Your task to perform on an android device: toggle pop-ups in chrome Image 0: 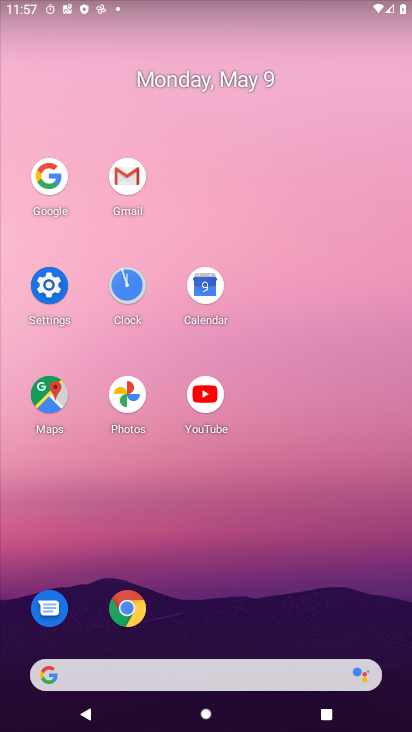
Step 0: click (133, 605)
Your task to perform on an android device: toggle pop-ups in chrome Image 1: 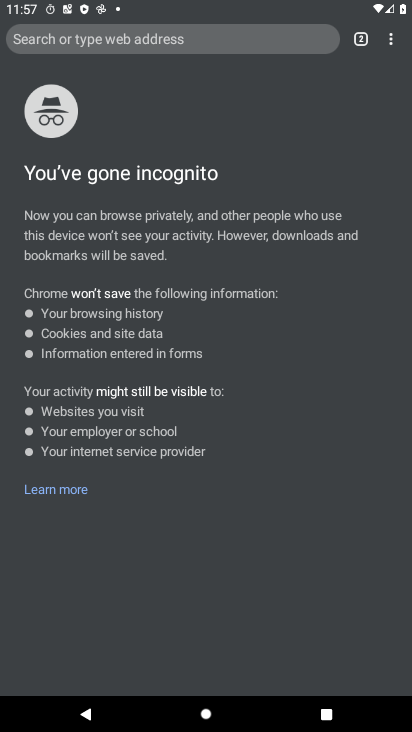
Step 1: click (391, 38)
Your task to perform on an android device: toggle pop-ups in chrome Image 2: 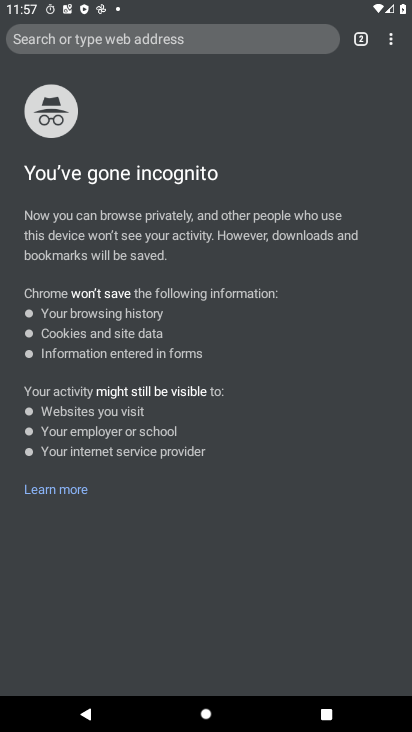
Step 2: click (392, 46)
Your task to perform on an android device: toggle pop-ups in chrome Image 3: 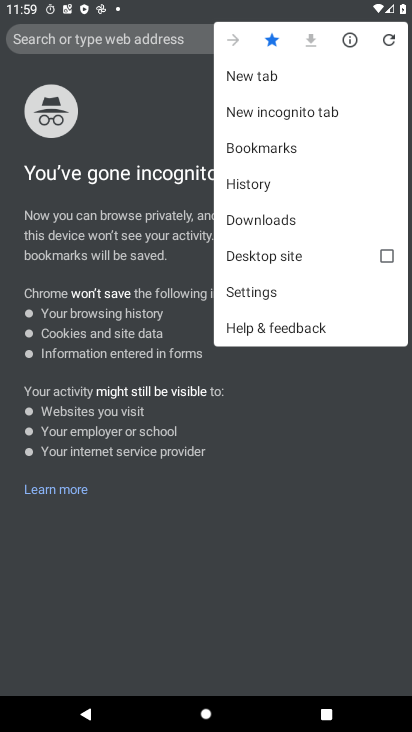
Step 3: click (271, 291)
Your task to perform on an android device: toggle pop-ups in chrome Image 4: 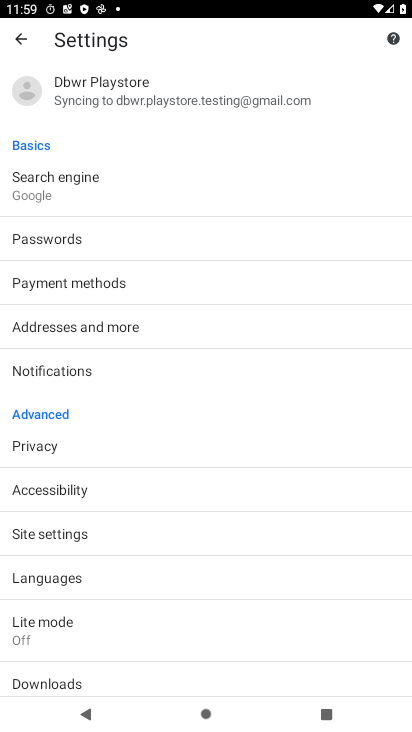
Step 4: drag from (201, 609) to (243, 122)
Your task to perform on an android device: toggle pop-ups in chrome Image 5: 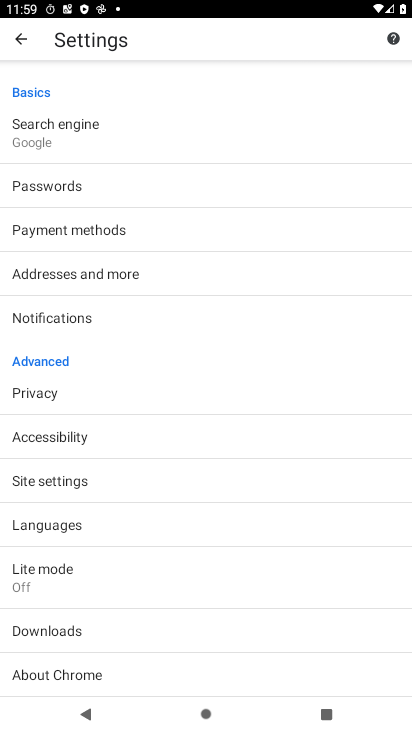
Step 5: click (106, 493)
Your task to perform on an android device: toggle pop-ups in chrome Image 6: 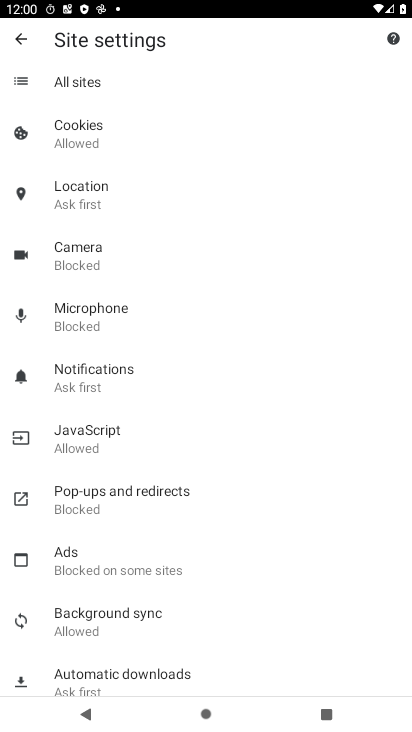
Step 6: drag from (200, 598) to (195, 165)
Your task to perform on an android device: toggle pop-ups in chrome Image 7: 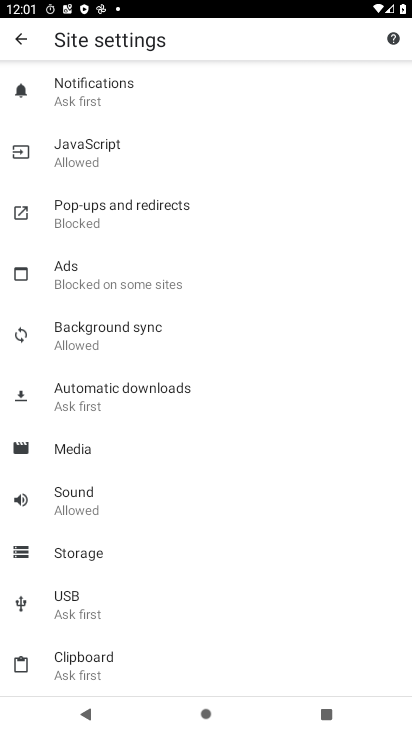
Step 7: click (141, 203)
Your task to perform on an android device: toggle pop-ups in chrome Image 8: 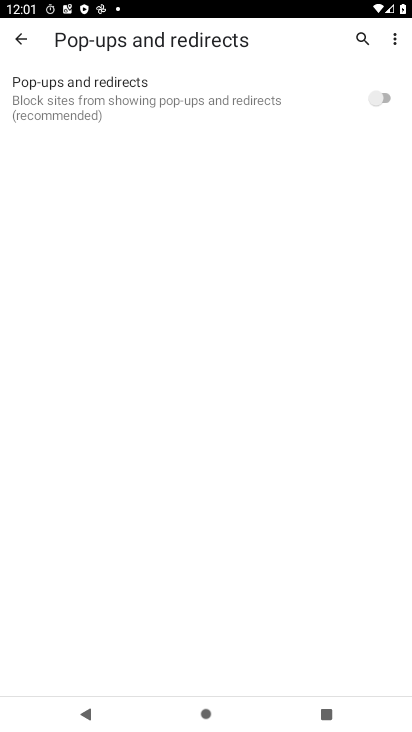
Step 8: click (378, 101)
Your task to perform on an android device: toggle pop-ups in chrome Image 9: 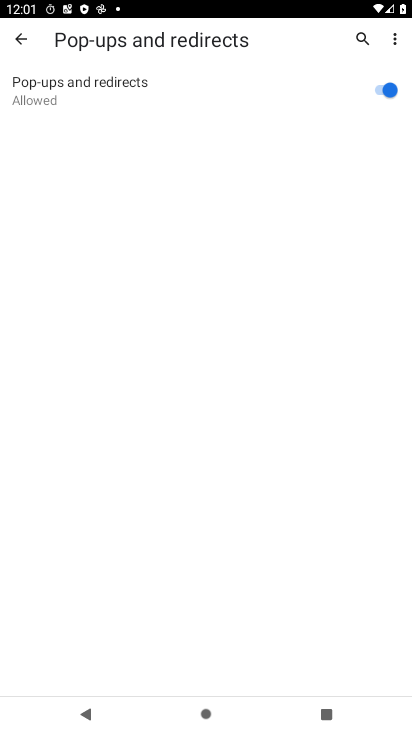
Step 9: task complete